Your task to perform on an android device: Go to eBay Image 0: 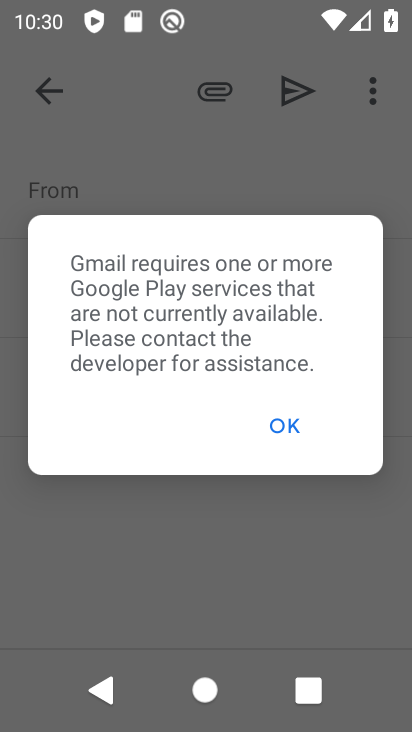
Step 0: press home button
Your task to perform on an android device: Go to eBay Image 1: 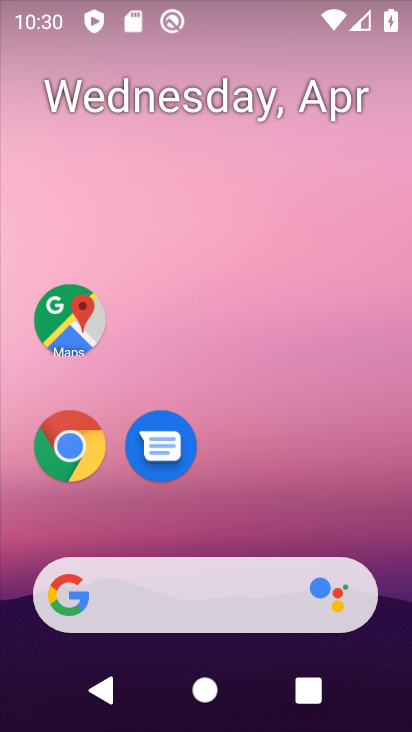
Step 1: click (69, 447)
Your task to perform on an android device: Go to eBay Image 2: 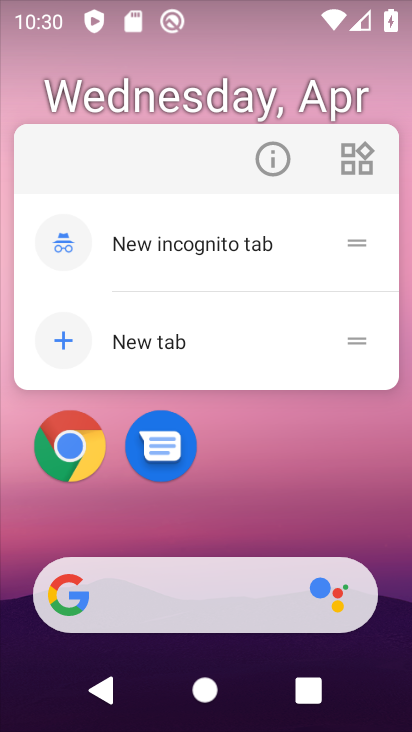
Step 2: click (70, 448)
Your task to perform on an android device: Go to eBay Image 3: 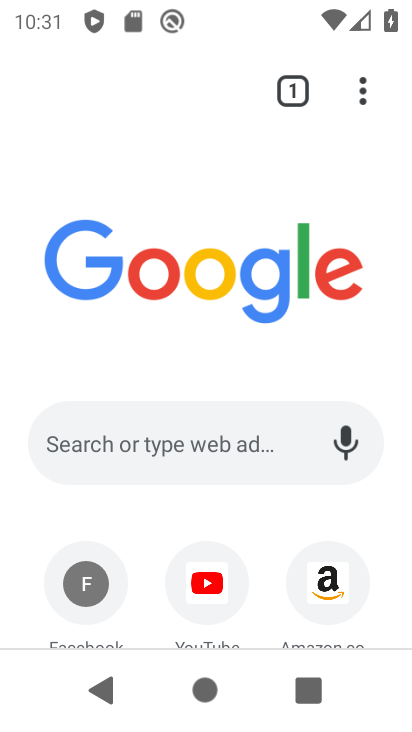
Step 3: drag from (252, 600) to (206, 239)
Your task to perform on an android device: Go to eBay Image 4: 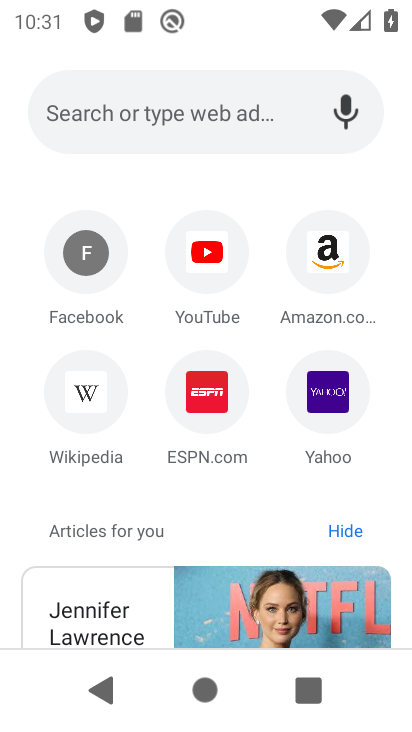
Step 4: click (211, 136)
Your task to perform on an android device: Go to eBay Image 5: 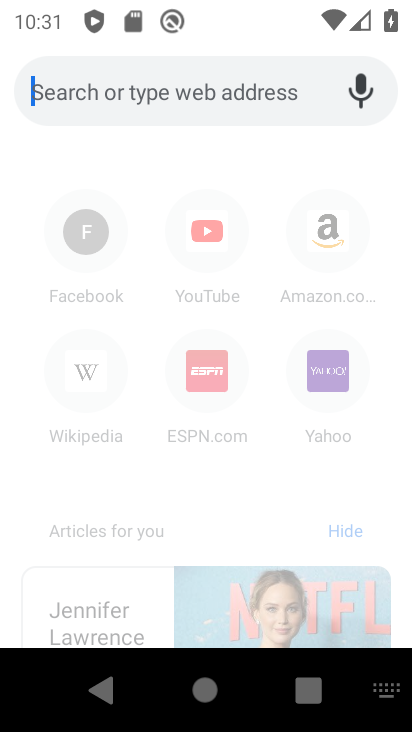
Step 5: type "ebay"
Your task to perform on an android device: Go to eBay Image 6: 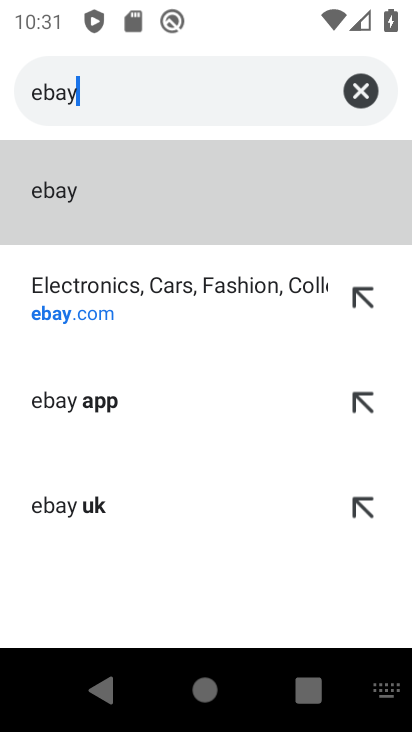
Step 6: click (98, 237)
Your task to perform on an android device: Go to eBay Image 7: 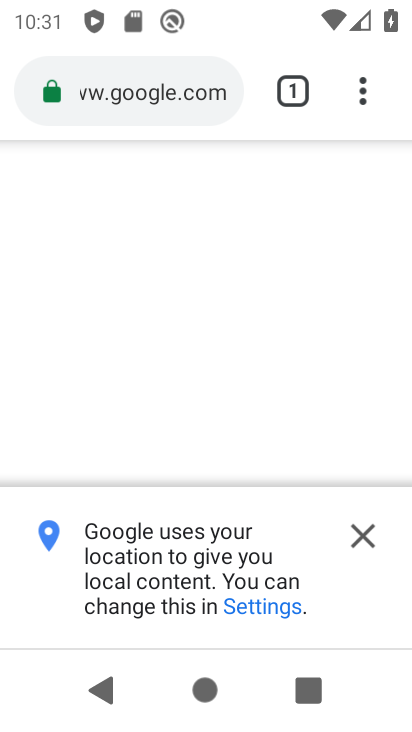
Step 7: click (361, 541)
Your task to perform on an android device: Go to eBay Image 8: 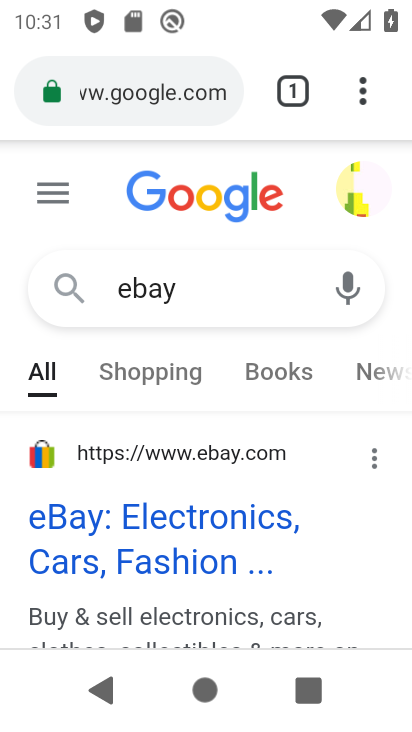
Step 8: click (114, 515)
Your task to perform on an android device: Go to eBay Image 9: 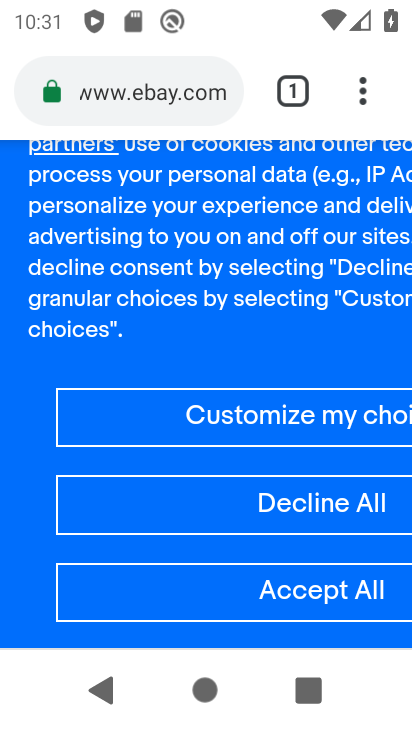
Step 9: task complete